Your task to perform on an android device: turn pop-ups on in chrome Image 0: 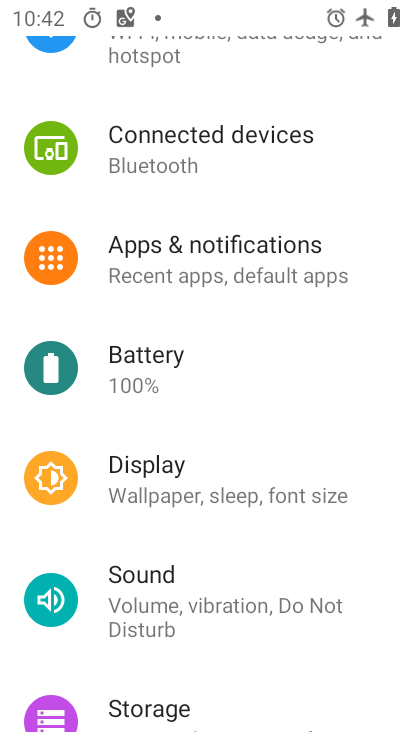
Step 0: press home button
Your task to perform on an android device: turn pop-ups on in chrome Image 1: 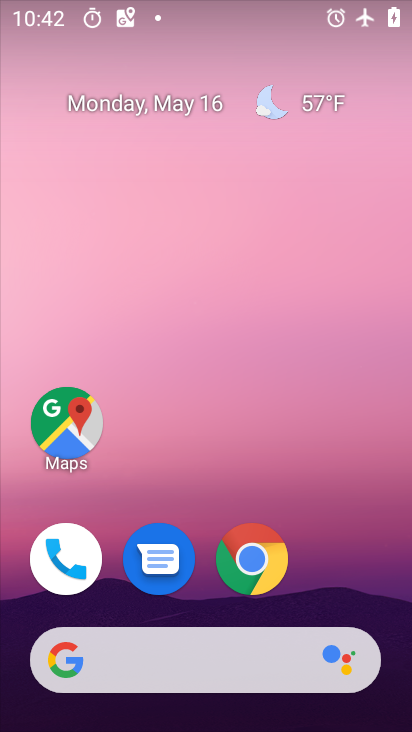
Step 1: click (248, 551)
Your task to perform on an android device: turn pop-ups on in chrome Image 2: 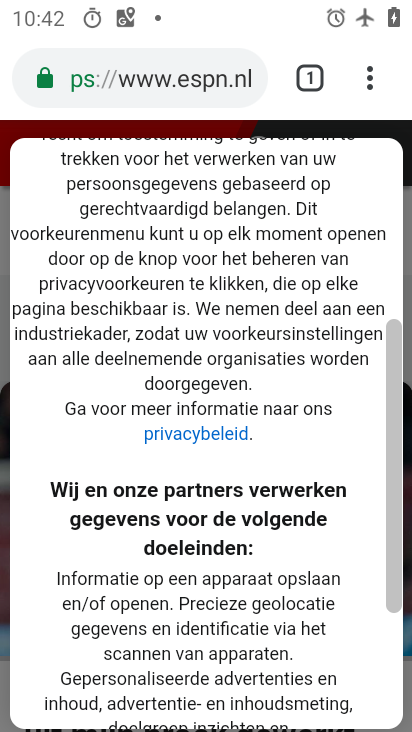
Step 2: drag from (374, 64) to (154, 620)
Your task to perform on an android device: turn pop-ups on in chrome Image 3: 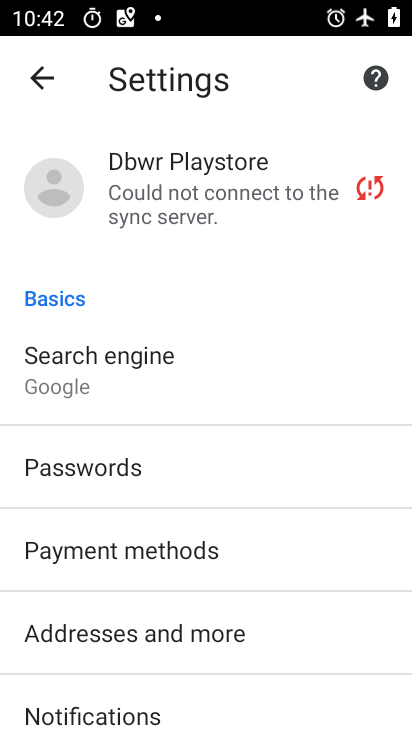
Step 3: drag from (316, 562) to (364, 81)
Your task to perform on an android device: turn pop-ups on in chrome Image 4: 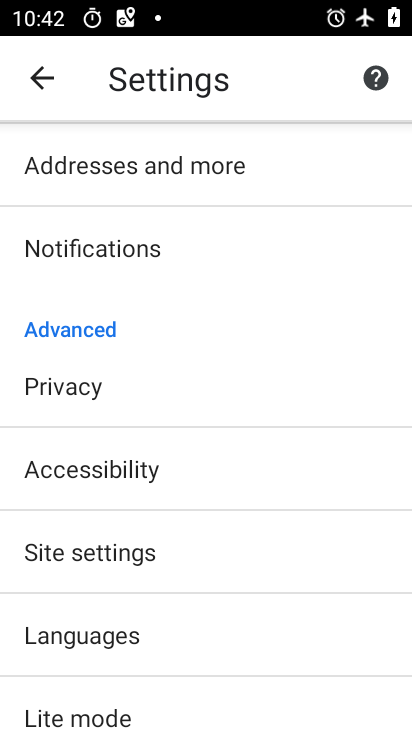
Step 4: click (120, 546)
Your task to perform on an android device: turn pop-ups on in chrome Image 5: 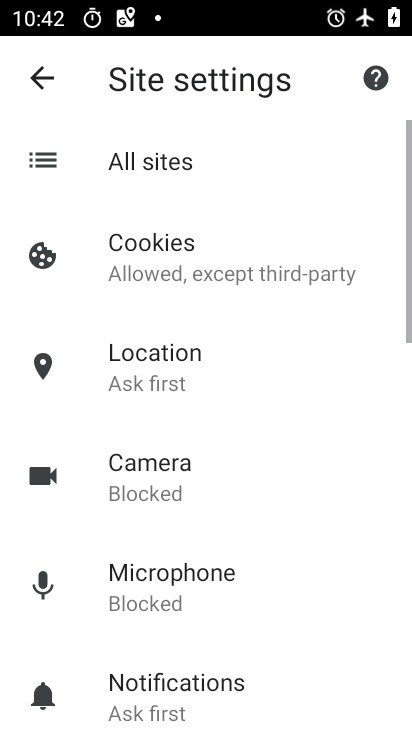
Step 5: drag from (278, 624) to (331, 276)
Your task to perform on an android device: turn pop-ups on in chrome Image 6: 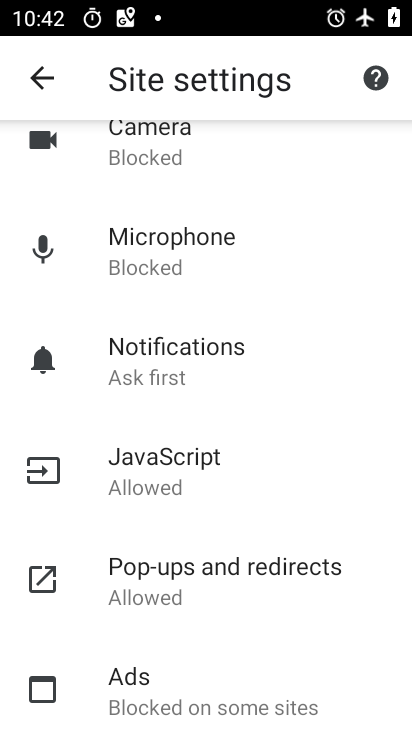
Step 6: click (182, 590)
Your task to perform on an android device: turn pop-ups on in chrome Image 7: 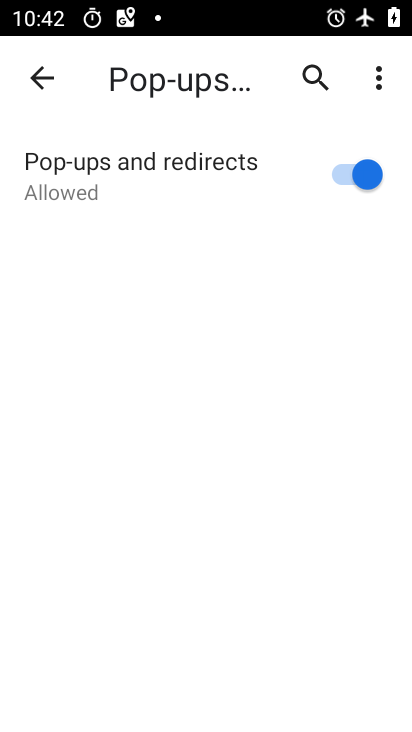
Step 7: task complete